Your task to perform on an android device: Turn off the flashlight Image 0: 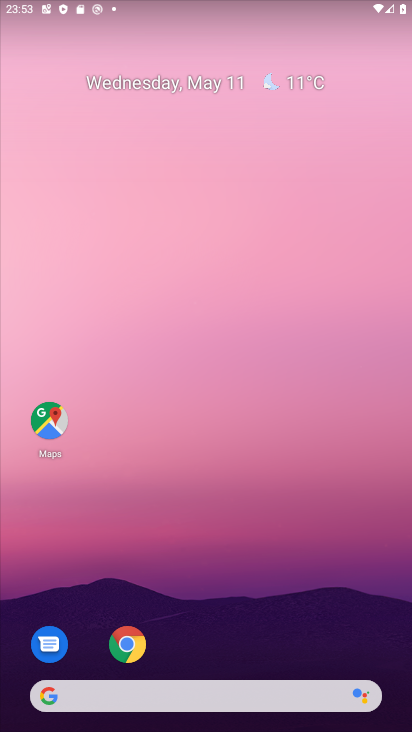
Step 0: drag from (206, 656) to (220, 134)
Your task to perform on an android device: Turn off the flashlight Image 1: 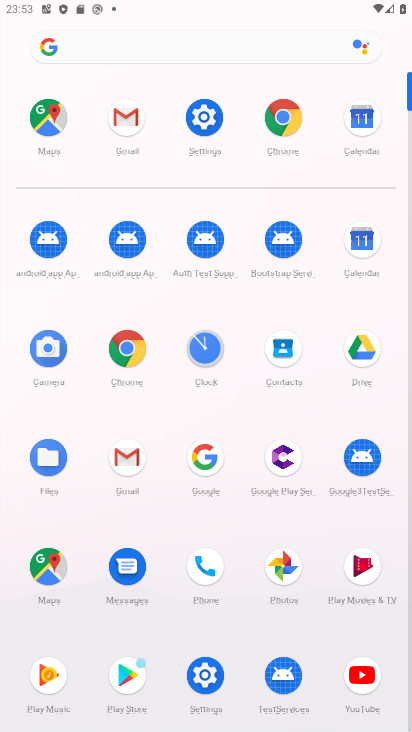
Step 1: click (205, 115)
Your task to perform on an android device: Turn off the flashlight Image 2: 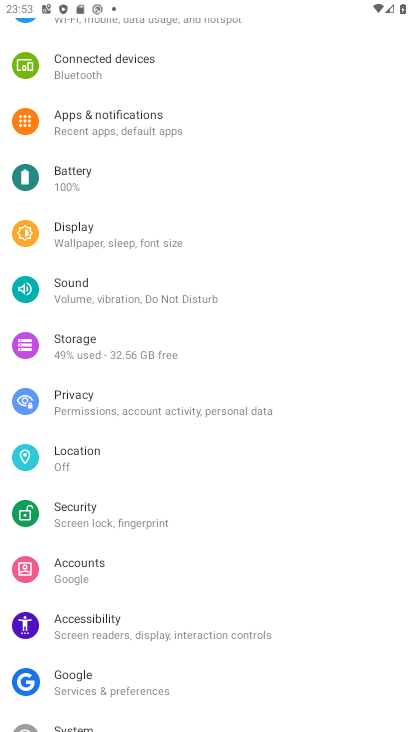
Step 2: drag from (160, 141) to (139, 651)
Your task to perform on an android device: Turn off the flashlight Image 3: 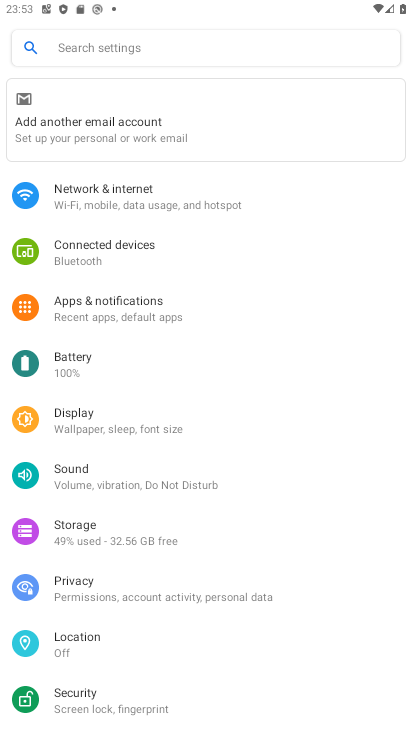
Step 3: click (115, 41)
Your task to perform on an android device: Turn off the flashlight Image 4: 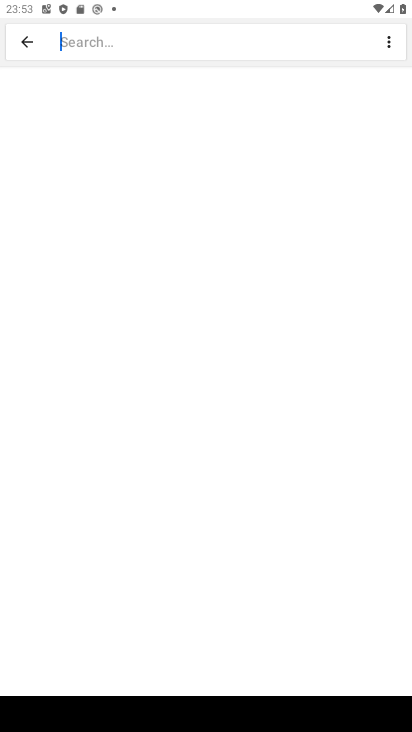
Step 4: click (27, 39)
Your task to perform on an android device: Turn off the flashlight Image 5: 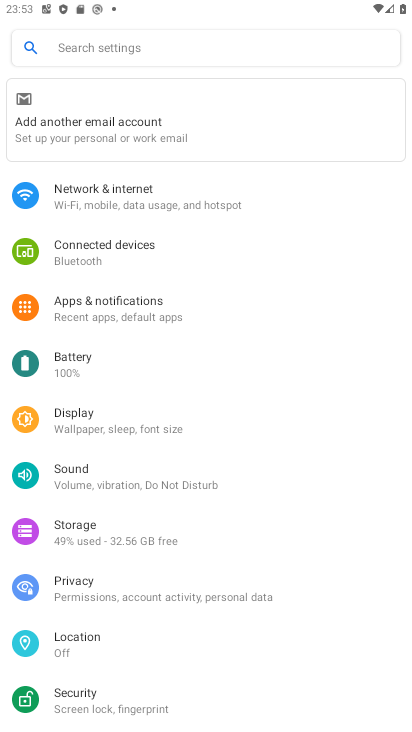
Step 5: click (83, 49)
Your task to perform on an android device: Turn off the flashlight Image 6: 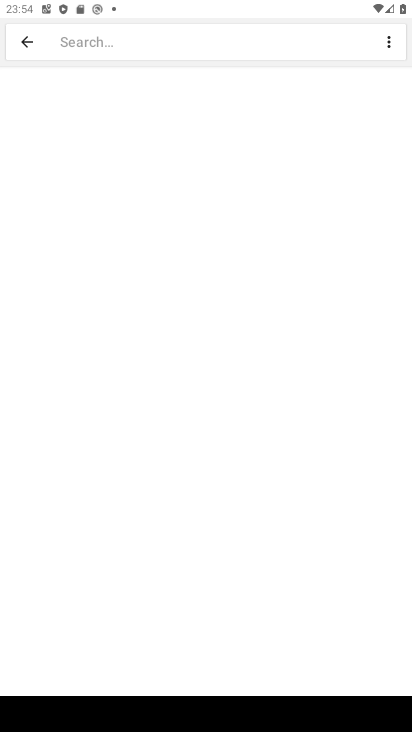
Step 6: type "flashlight"
Your task to perform on an android device: Turn off the flashlight Image 7: 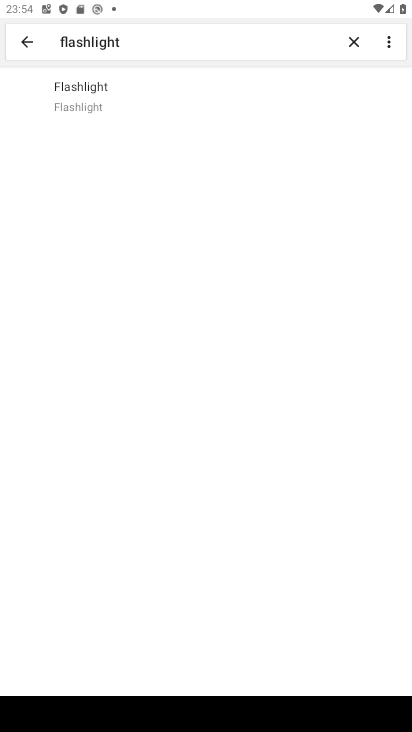
Step 7: click (100, 92)
Your task to perform on an android device: Turn off the flashlight Image 8: 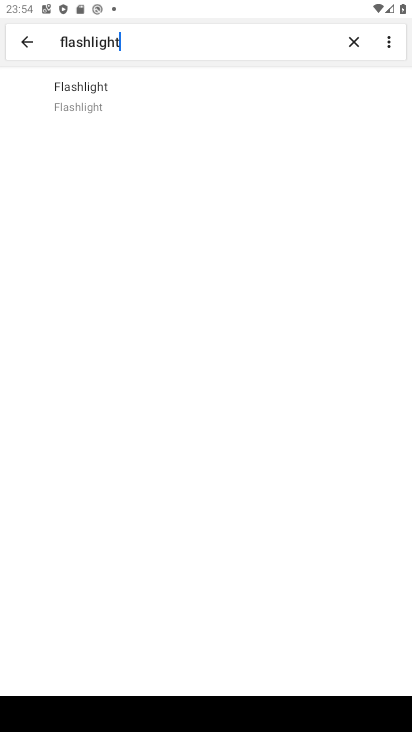
Step 8: click (106, 100)
Your task to perform on an android device: Turn off the flashlight Image 9: 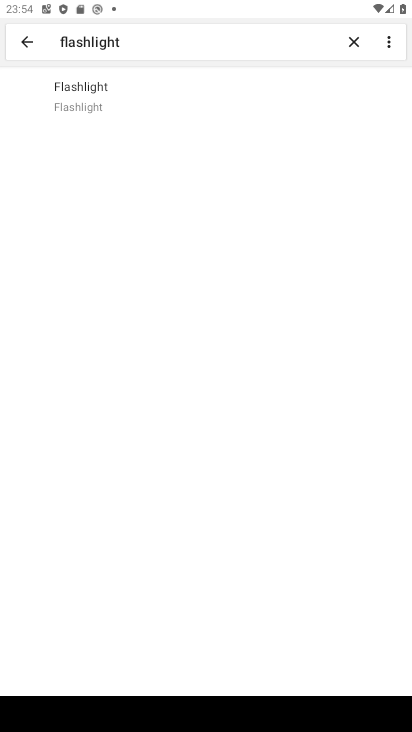
Step 9: task complete